Your task to perform on an android device: check out phone information Image 0: 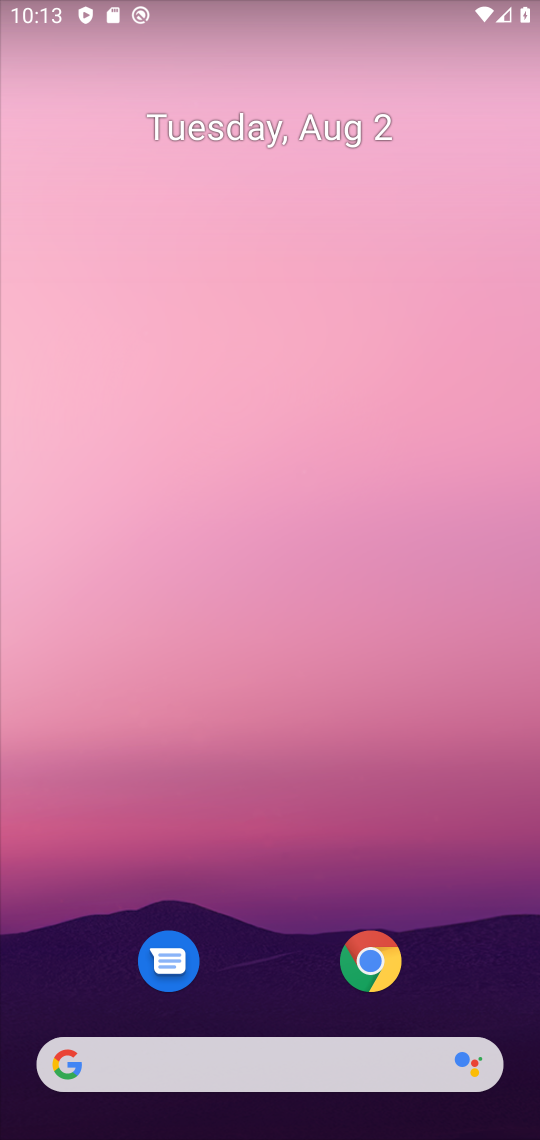
Step 0: press home button
Your task to perform on an android device: check out phone information Image 1: 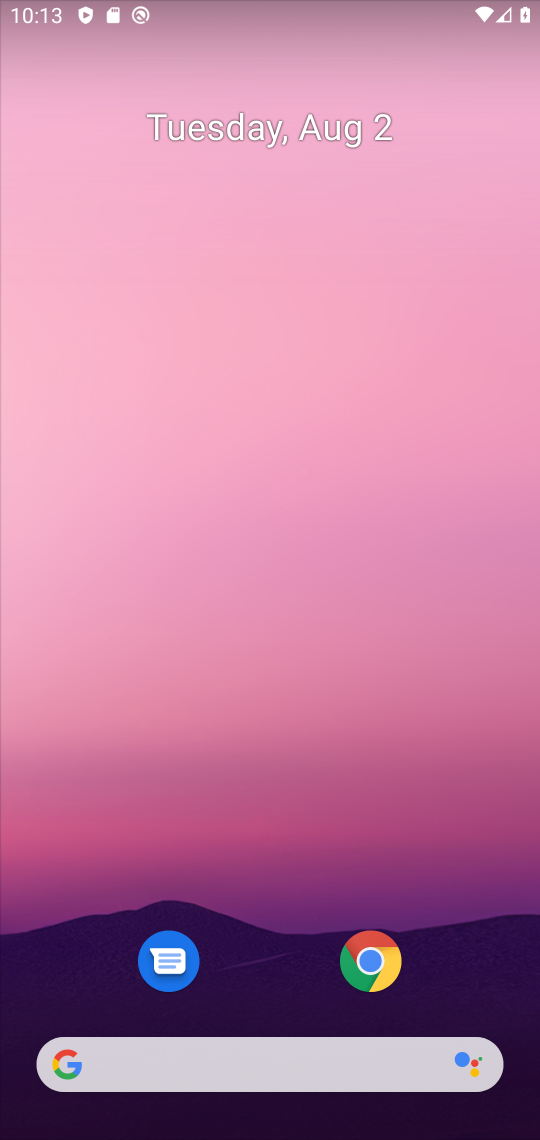
Step 1: drag from (287, 994) to (351, 34)
Your task to perform on an android device: check out phone information Image 2: 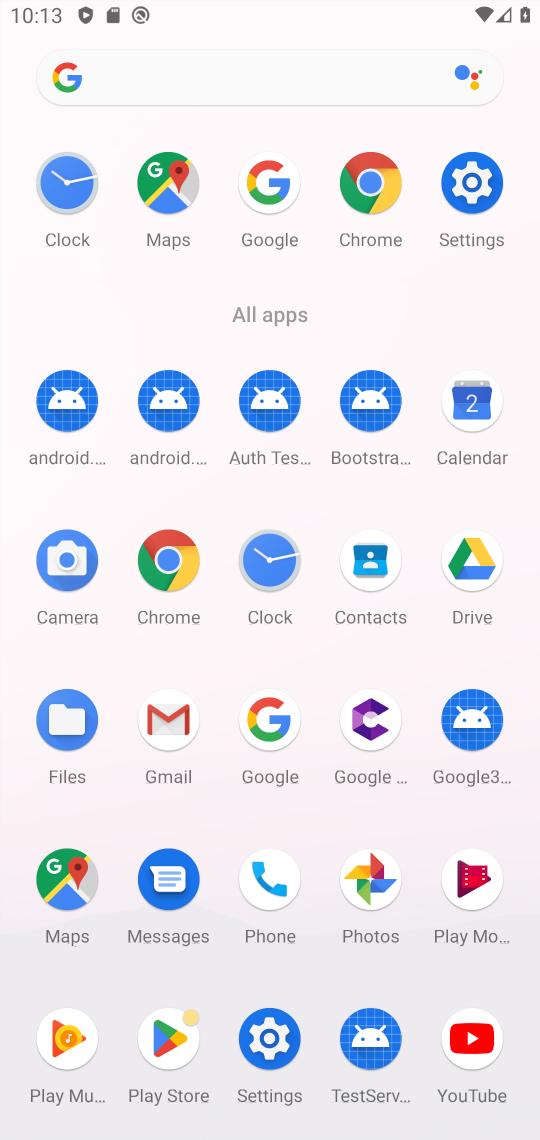
Step 2: click (472, 172)
Your task to perform on an android device: check out phone information Image 3: 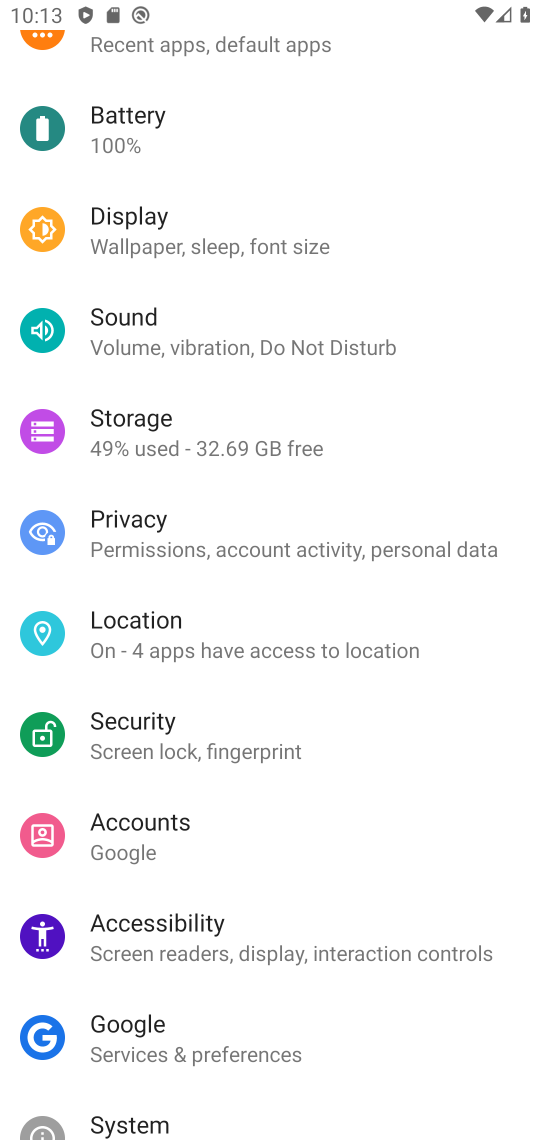
Step 3: drag from (251, 1085) to (210, 176)
Your task to perform on an android device: check out phone information Image 4: 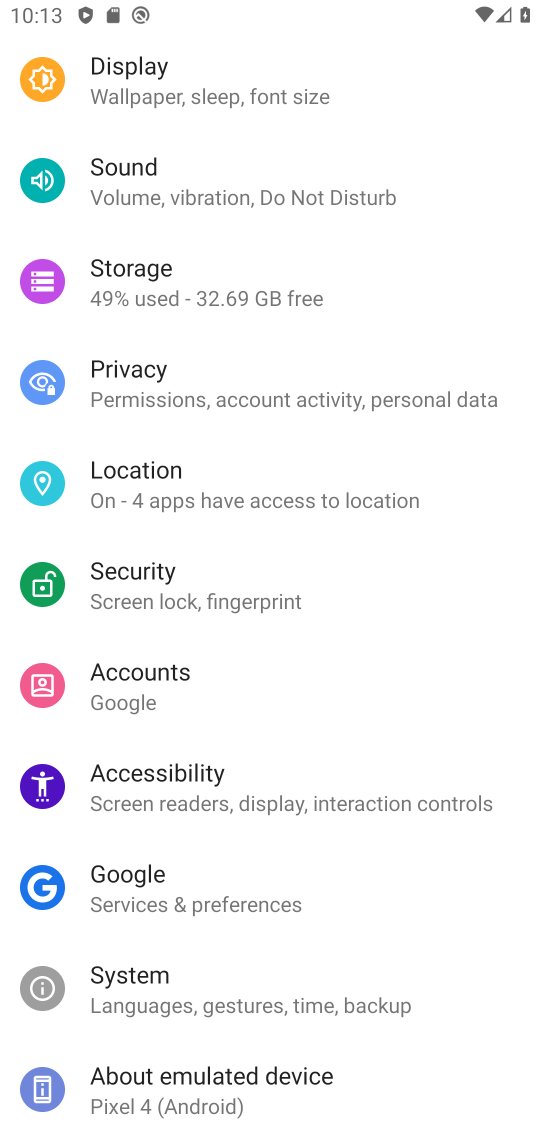
Step 4: click (273, 1091)
Your task to perform on an android device: check out phone information Image 5: 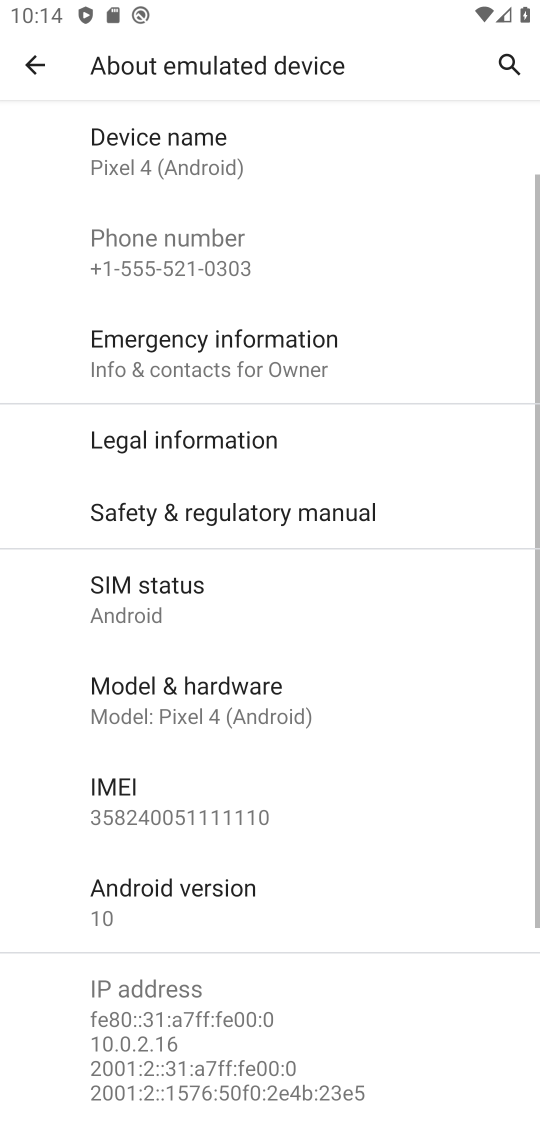
Step 5: task complete